Your task to perform on an android device: Go to location settings Image 0: 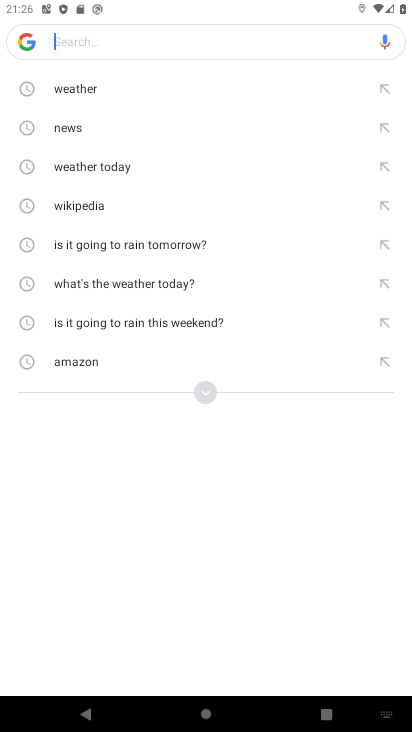
Step 0: press home button
Your task to perform on an android device: Go to location settings Image 1: 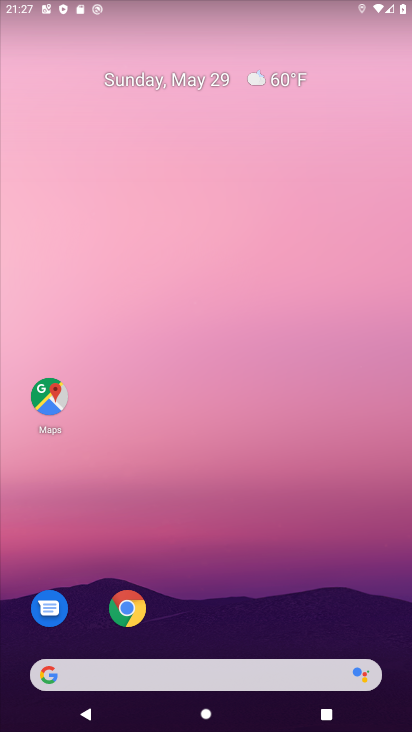
Step 1: drag from (349, 606) to (356, 214)
Your task to perform on an android device: Go to location settings Image 2: 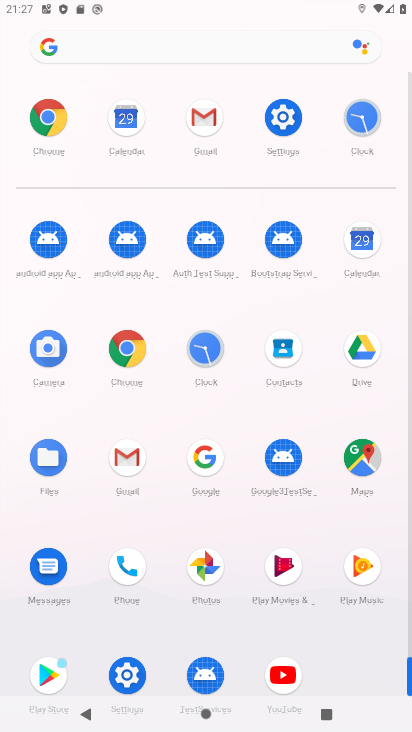
Step 2: click (287, 138)
Your task to perform on an android device: Go to location settings Image 3: 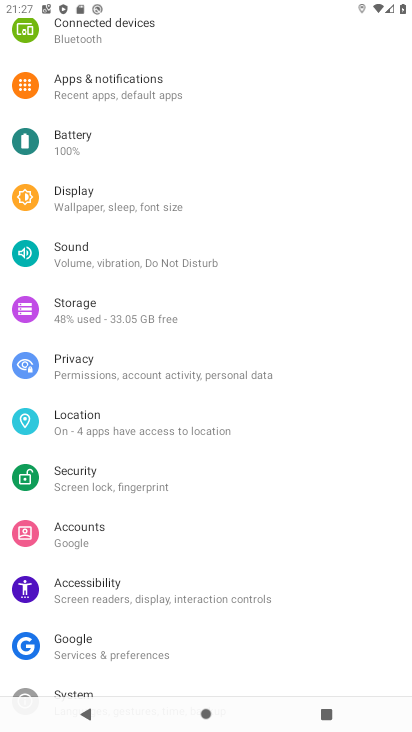
Step 3: drag from (287, 138) to (295, 249)
Your task to perform on an android device: Go to location settings Image 4: 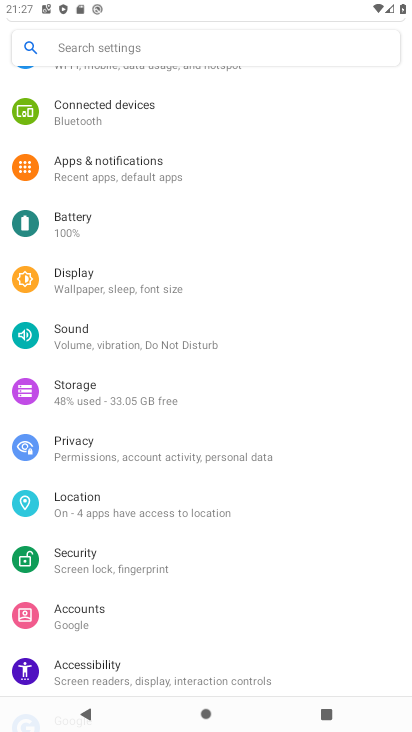
Step 4: drag from (302, 137) to (301, 262)
Your task to perform on an android device: Go to location settings Image 5: 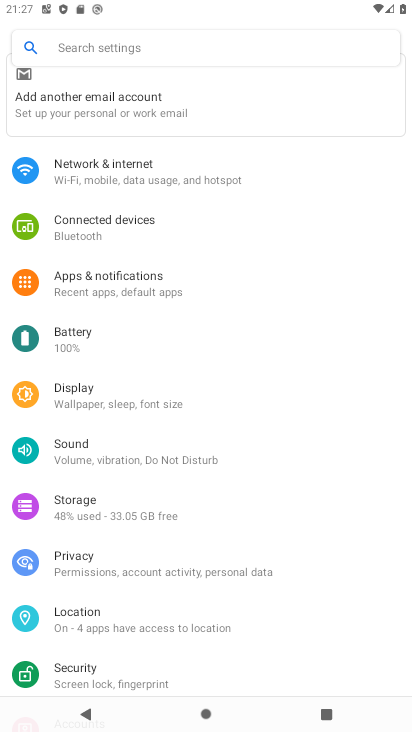
Step 5: drag from (284, 150) to (295, 298)
Your task to perform on an android device: Go to location settings Image 6: 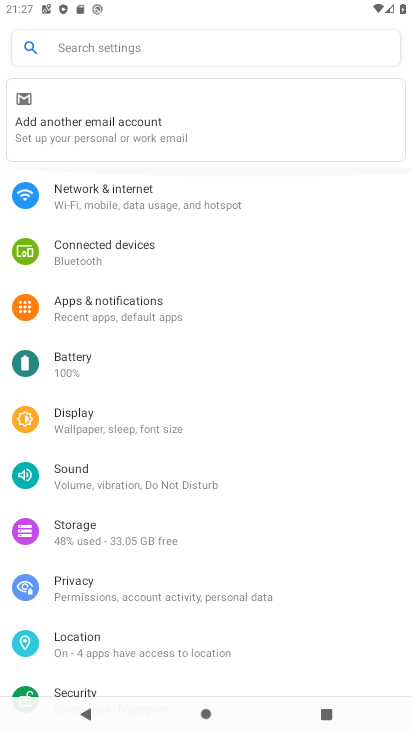
Step 6: drag from (286, 361) to (301, 248)
Your task to perform on an android device: Go to location settings Image 7: 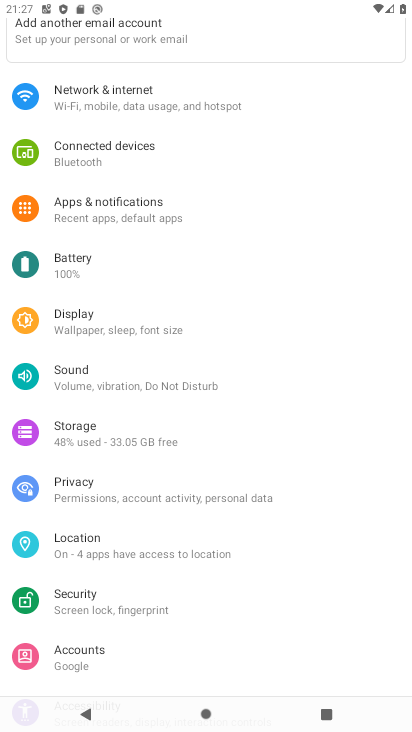
Step 7: drag from (313, 362) to (304, 256)
Your task to perform on an android device: Go to location settings Image 8: 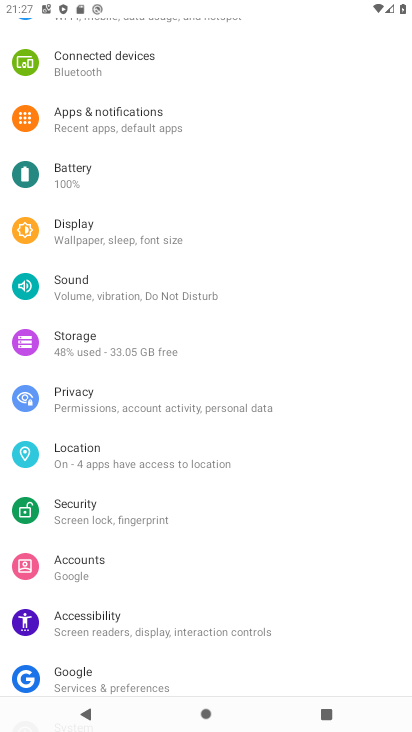
Step 8: drag from (330, 391) to (319, 251)
Your task to perform on an android device: Go to location settings Image 9: 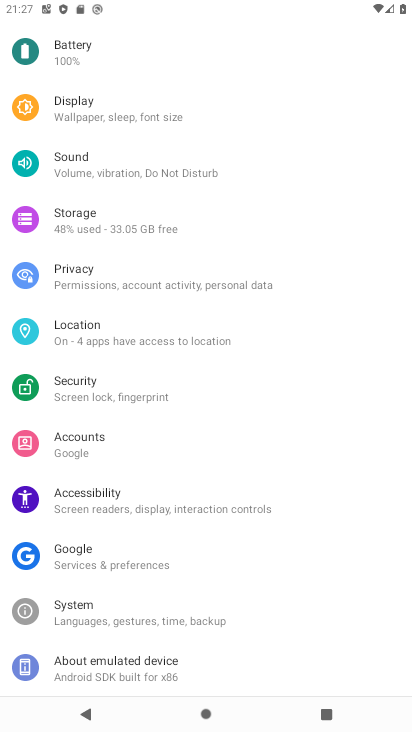
Step 9: drag from (326, 394) to (344, 269)
Your task to perform on an android device: Go to location settings Image 10: 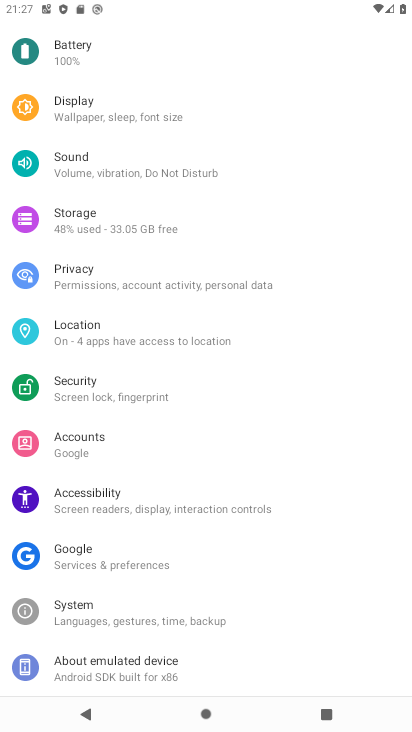
Step 10: click (230, 333)
Your task to perform on an android device: Go to location settings Image 11: 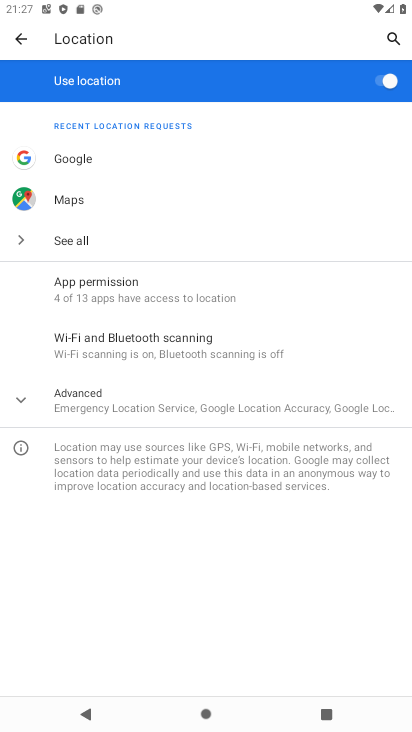
Step 11: task complete